Your task to perform on an android device: check the backup settings in the google photos Image 0: 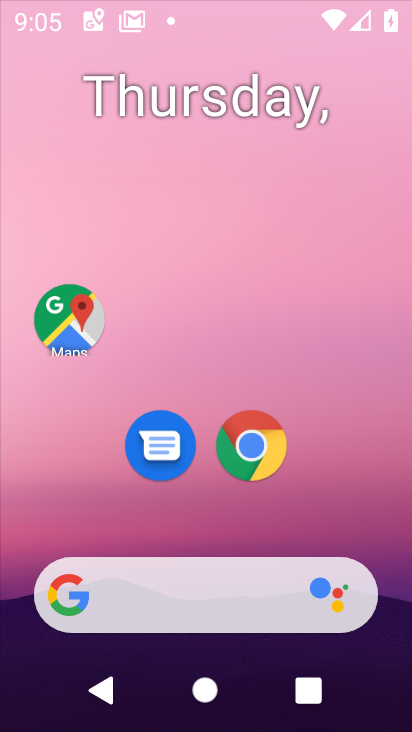
Step 0: click (276, 107)
Your task to perform on an android device: check the backup settings in the google photos Image 1: 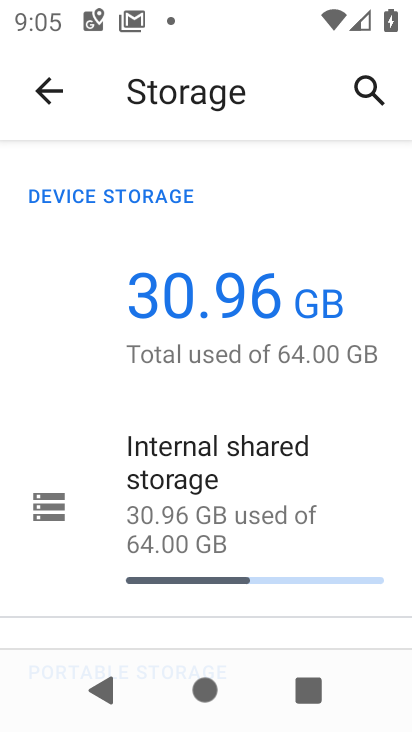
Step 1: press home button
Your task to perform on an android device: check the backup settings in the google photos Image 2: 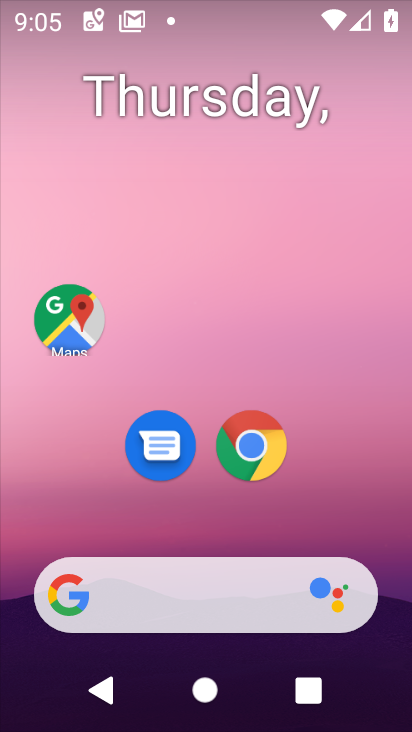
Step 2: drag from (318, 511) to (296, 218)
Your task to perform on an android device: check the backup settings in the google photos Image 3: 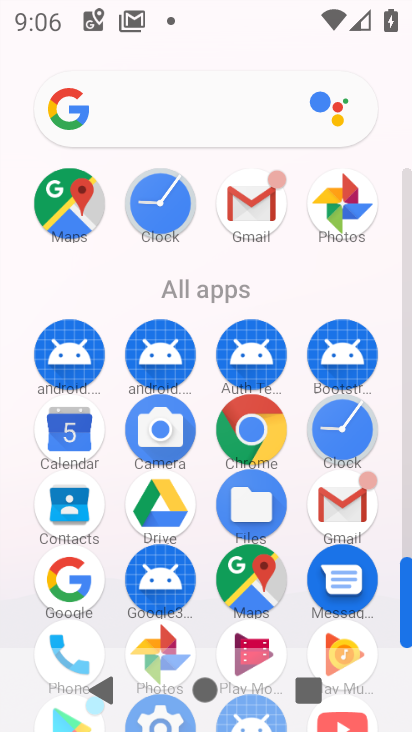
Step 3: click (172, 639)
Your task to perform on an android device: check the backup settings in the google photos Image 4: 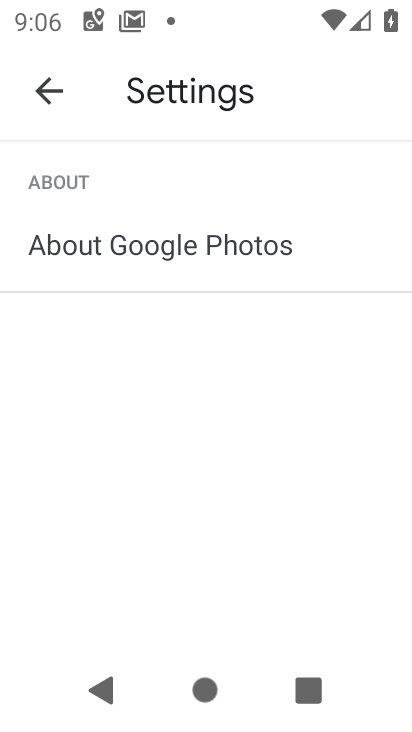
Step 4: click (51, 99)
Your task to perform on an android device: check the backup settings in the google photos Image 5: 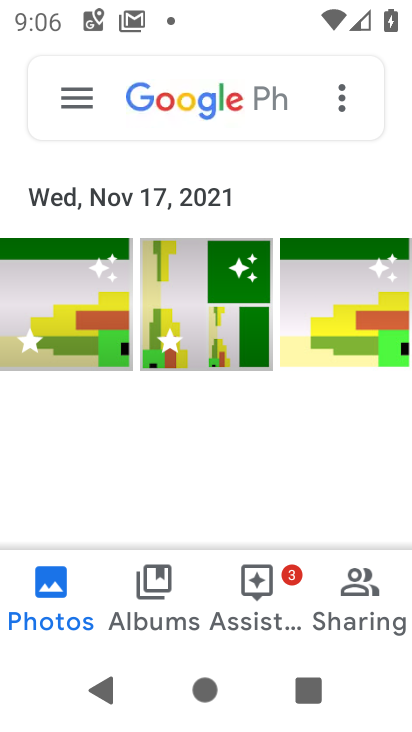
Step 5: click (71, 101)
Your task to perform on an android device: check the backup settings in the google photos Image 6: 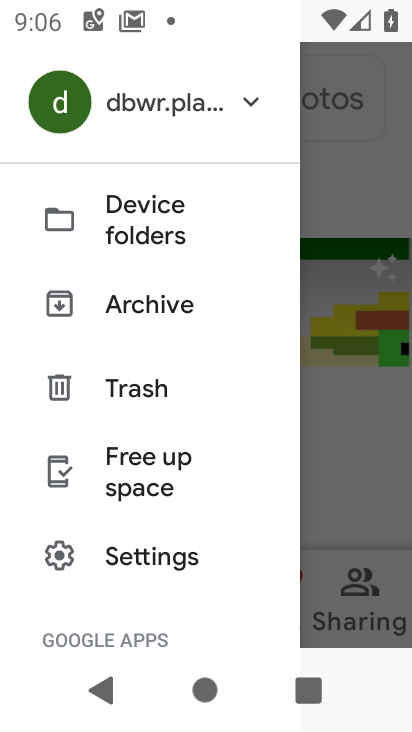
Step 6: drag from (189, 522) to (230, 236)
Your task to perform on an android device: check the backup settings in the google photos Image 7: 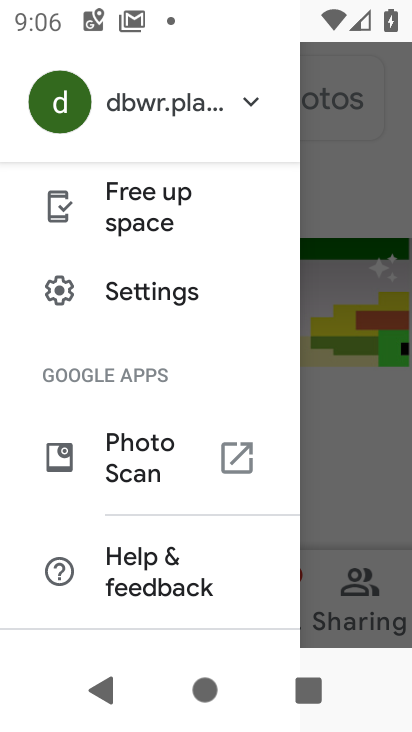
Step 7: click (176, 285)
Your task to perform on an android device: check the backup settings in the google photos Image 8: 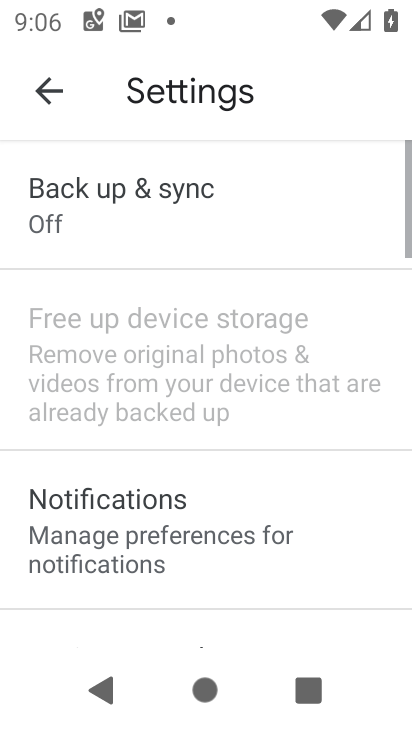
Step 8: click (155, 206)
Your task to perform on an android device: check the backup settings in the google photos Image 9: 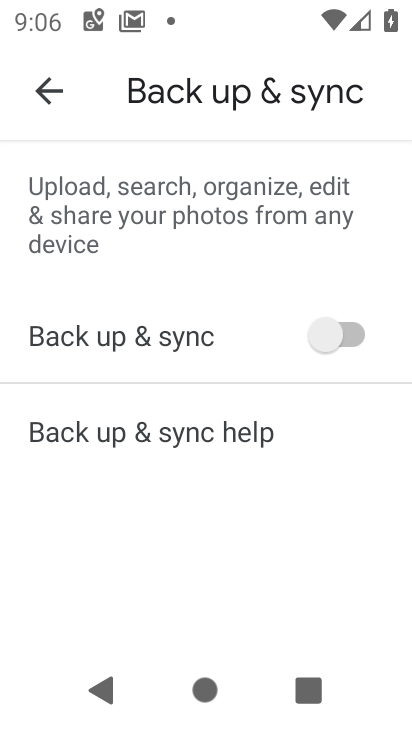
Step 9: task complete